Your task to perform on an android device: Open the calendar and show me this week's events Image 0: 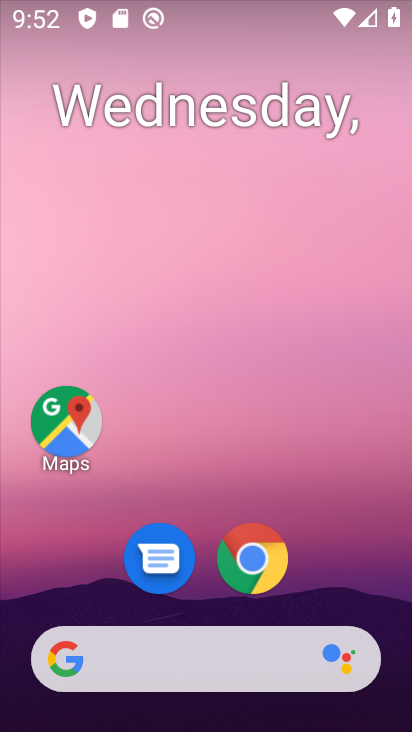
Step 0: drag from (55, 482) to (281, 53)
Your task to perform on an android device: Open the calendar and show me this week's events Image 1: 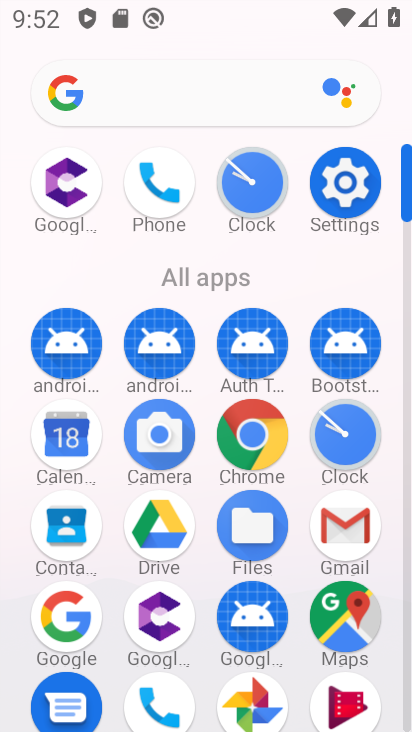
Step 1: click (50, 443)
Your task to perform on an android device: Open the calendar and show me this week's events Image 2: 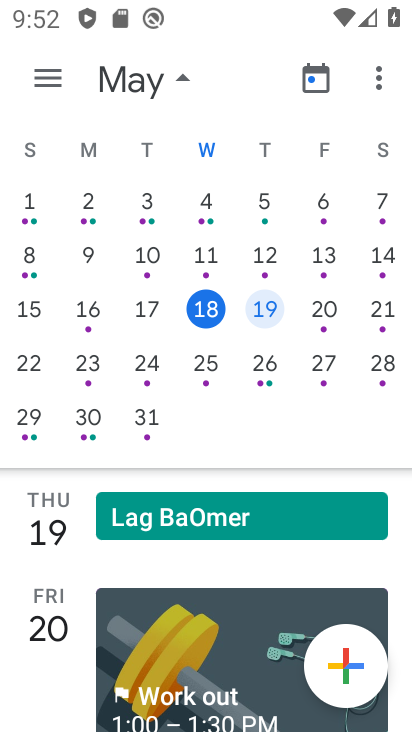
Step 2: click (85, 370)
Your task to perform on an android device: Open the calendar and show me this week's events Image 3: 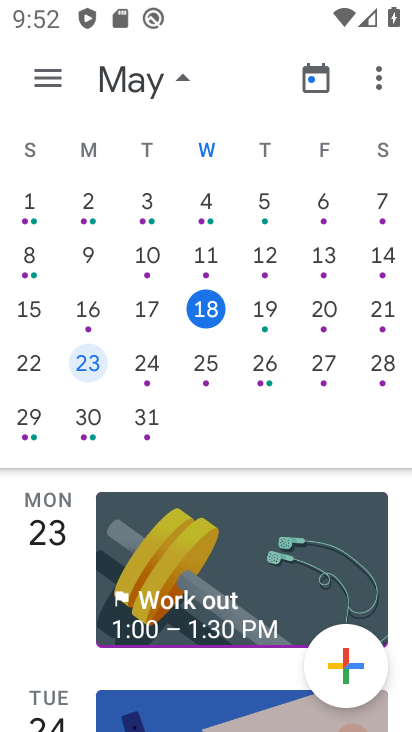
Step 3: click (145, 373)
Your task to perform on an android device: Open the calendar and show me this week's events Image 4: 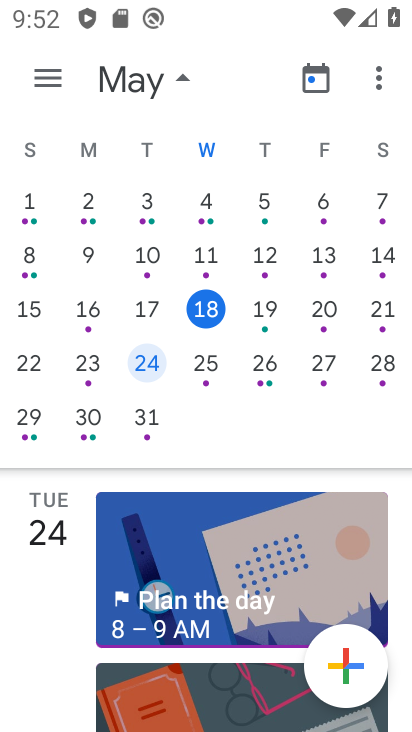
Step 4: click (224, 372)
Your task to perform on an android device: Open the calendar and show me this week's events Image 5: 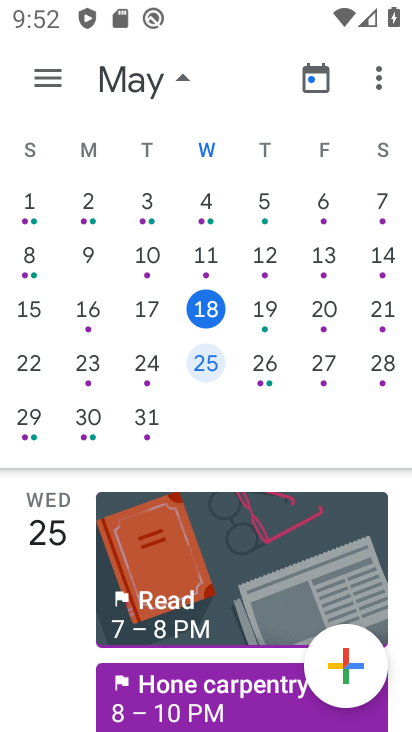
Step 5: click (259, 360)
Your task to perform on an android device: Open the calendar and show me this week's events Image 6: 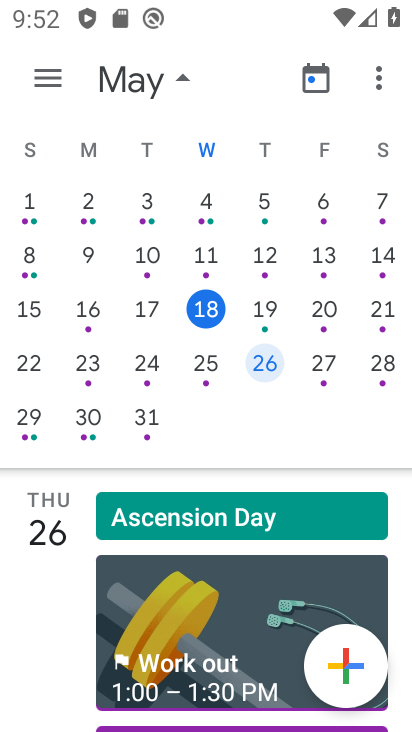
Step 6: click (310, 366)
Your task to perform on an android device: Open the calendar and show me this week's events Image 7: 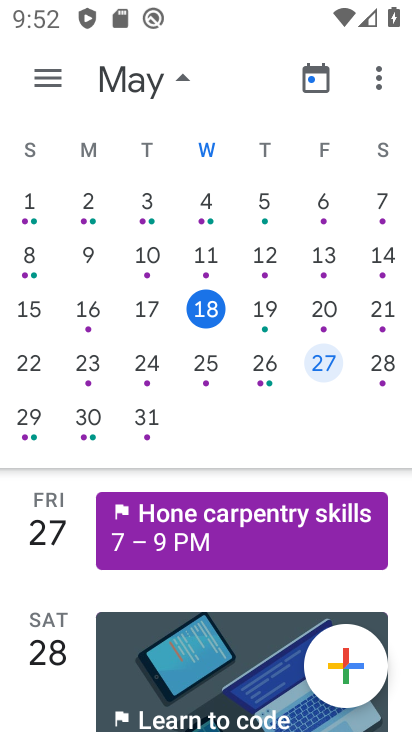
Step 7: task complete